Your task to perform on an android device: check the backup settings in the google photos Image 0: 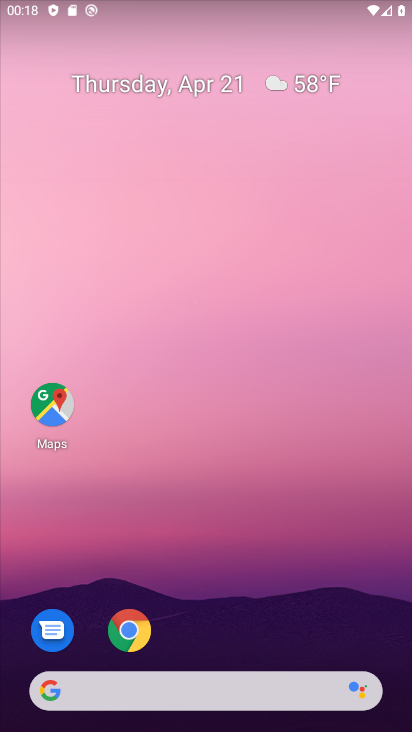
Step 0: drag from (152, 689) to (268, 198)
Your task to perform on an android device: check the backup settings in the google photos Image 1: 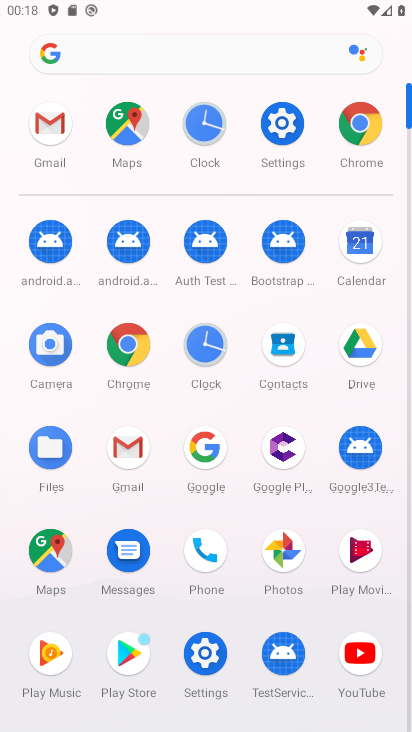
Step 1: click (281, 558)
Your task to perform on an android device: check the backup settings in the google photos Image 2: 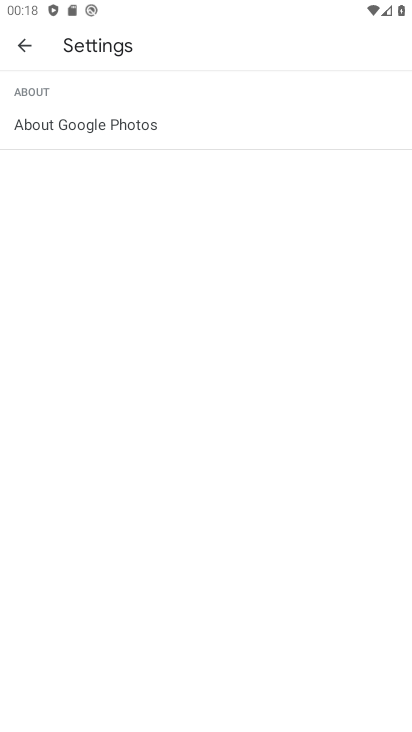
Step 2: click (28, 45)
Your task to perform on an android device: check the backup settings in the google photos Image 3: 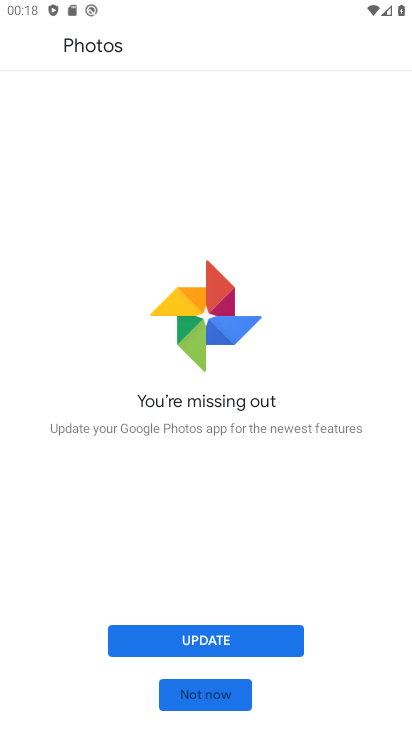
Step 3: click (216, 697)
Your task to perform on an android device: check the backup settings in the google photos Image 4: 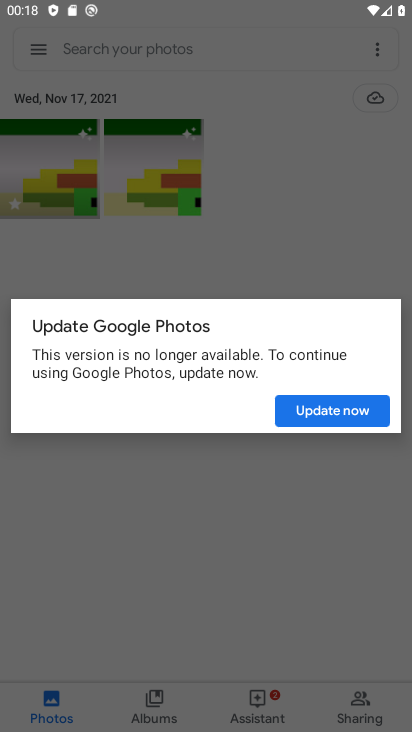
Step 4: click (320, 407)
Your task to perform on an android device: check the backup settings in the google photos Image 5: 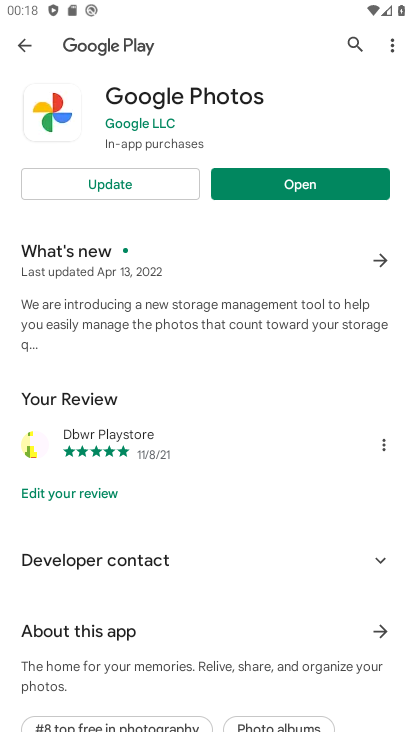
Step 5: click (304, 185)
Your task to perform on an android device: check the backup settings in the google photos Image 6: 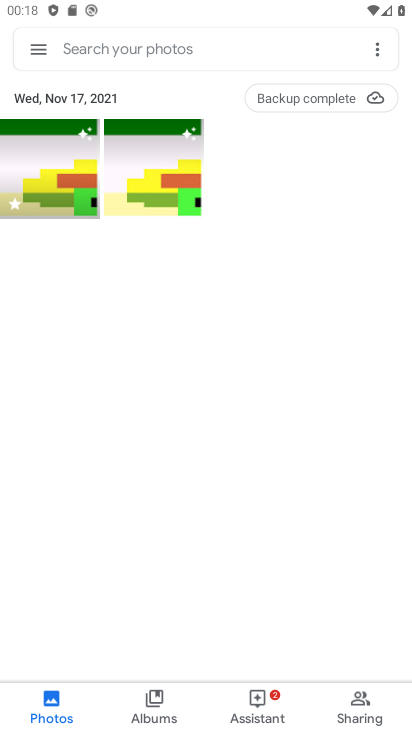
Step 6: click (47, 48)
Your task to perform on an android device: check the backup settings in the google photos Image 7: 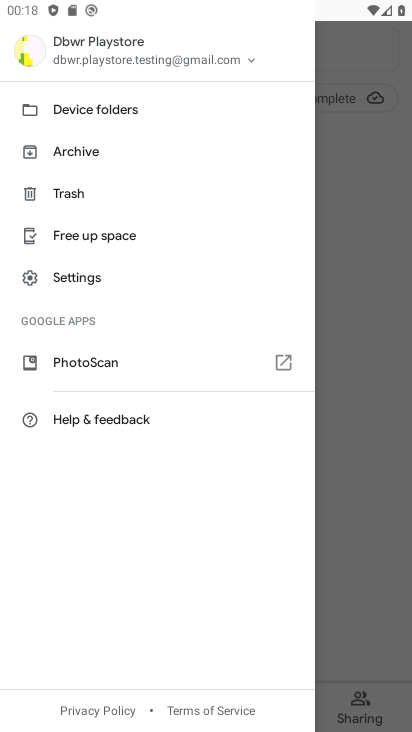
Step 7: click (81, 271)
Your task to perform on an android device: check the backup settings in the google photos Image 8: 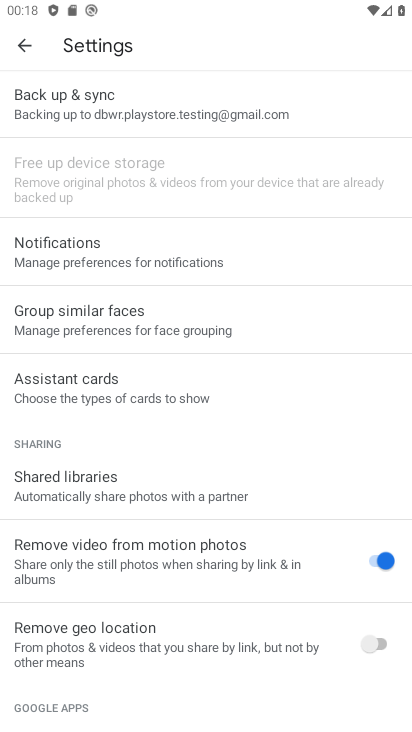
Step 8: click (159, 123)
Your task to perform on an android device: check the backup settings in the google photos Image 9: 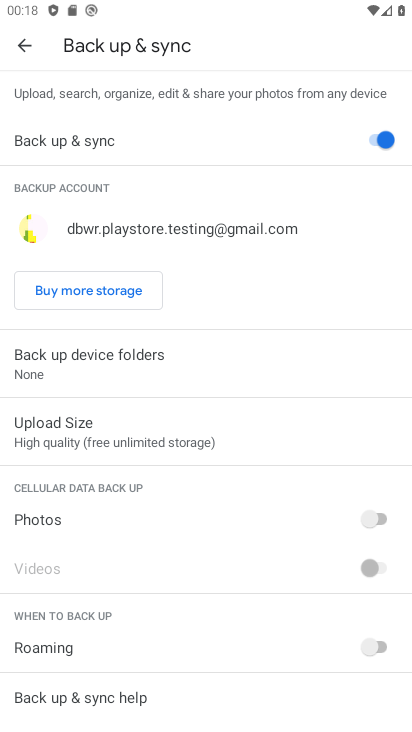
Step 9: task complete